Your task to perform on an android device: Open calendar and show me the first week of next month Image 0: 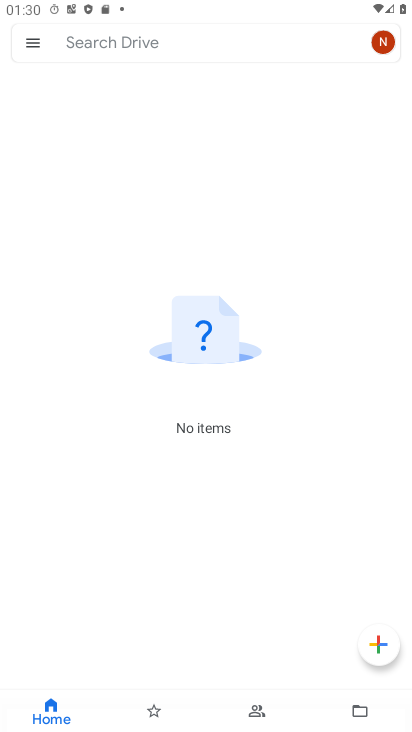
Step 0: press home button
Your task to perform on an android device: Open calendar and show me the first week of next month Image 1: 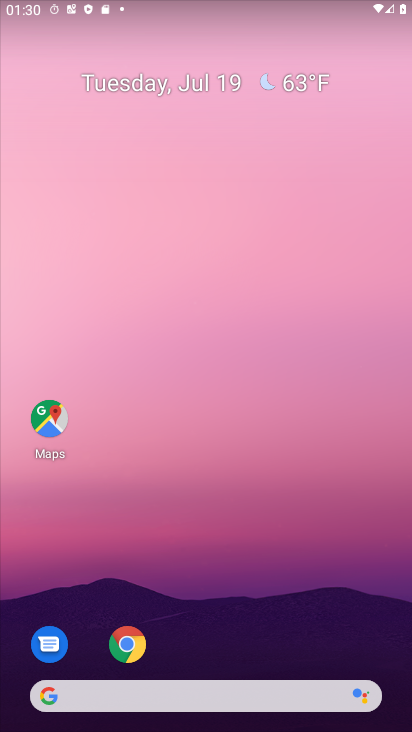
Step 1: drag from (214, 729) to (214, 200)
Your task to perform on an android device: Open calendar and show me the first week of next month Image 2: 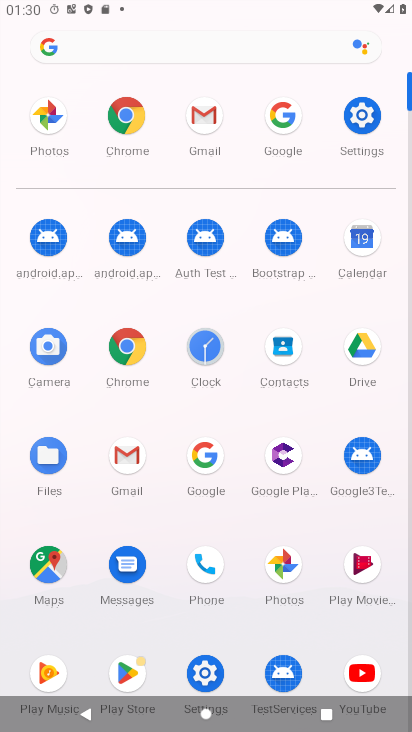
Step 2: click (362, 250)
Your task to perform on an android device: Open calendar and show me the first week of next month Image 3: 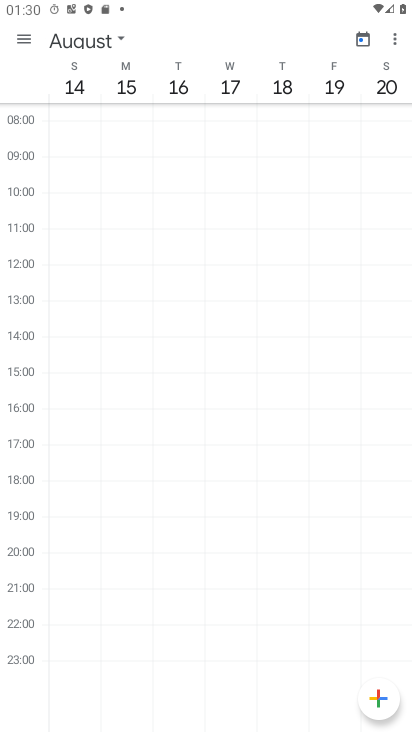
Step 3: click (121, 40)
Your task to perform on an android device: Open calendar and show me the first week of next month Image 4: 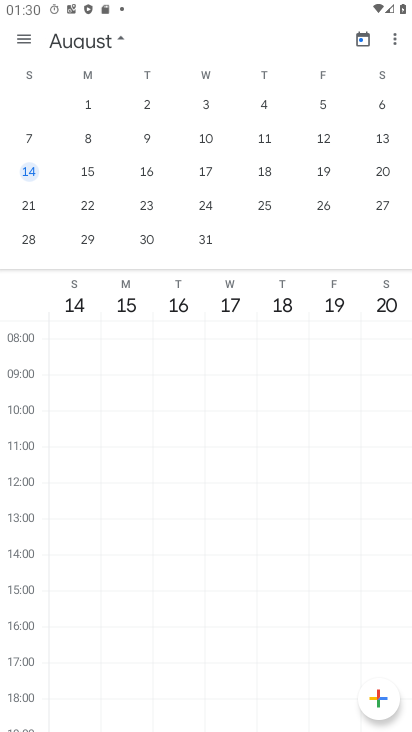
Step 4: click (87, 99)
Your task to perform on an android device: Open calendar and show me the first week of next month Image 5: 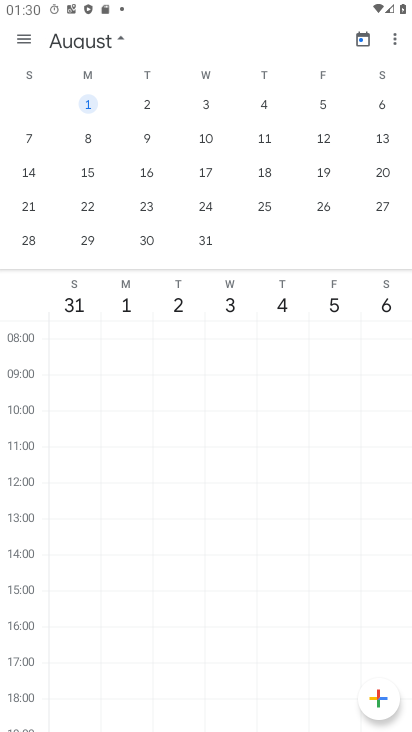
Step 5: click (22, 37)
Your task to perform on an android device: Open calendar and show me the first week of next month Image 6: 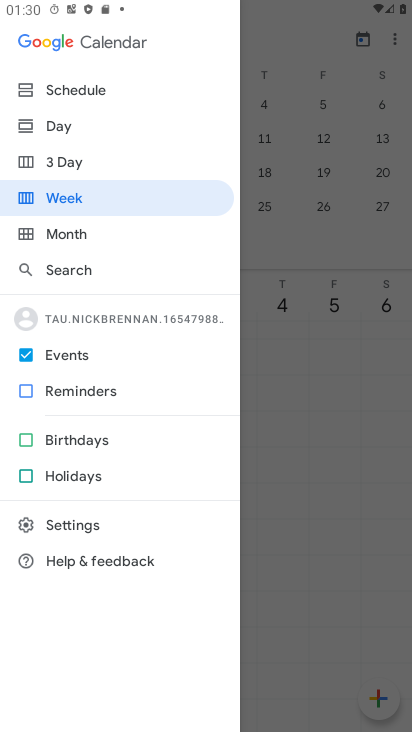
Step 6: click (54, 189)
Your task to perform on an android device: Open calendar and show me the first week of next month Image 7: 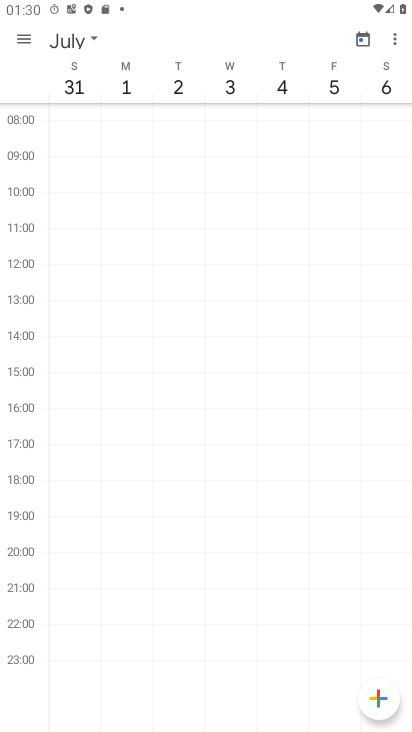
Step 7: task complete